Your task to perform on an android device: delete location history Image 0: 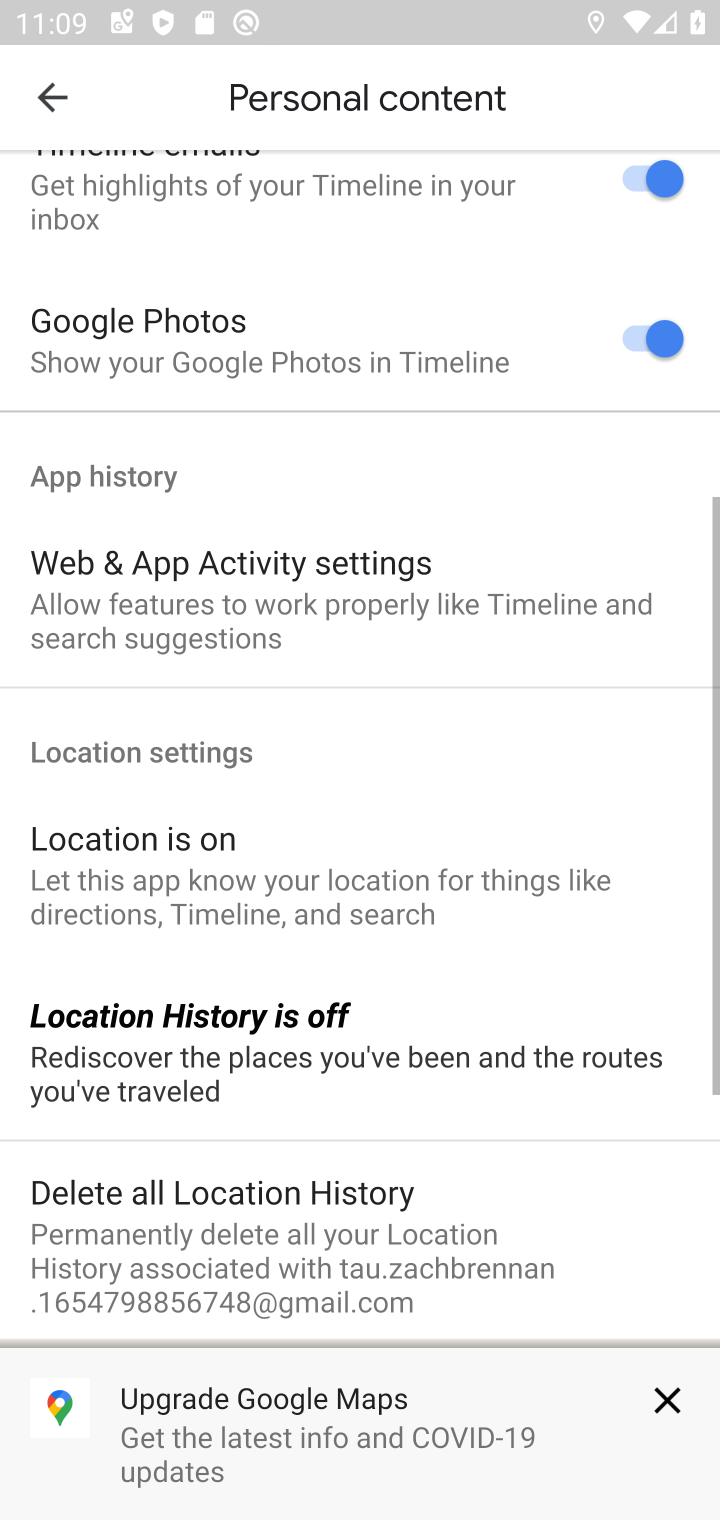
Step 0: press home button
Your task to perform on an android device: delete location history Image 1: 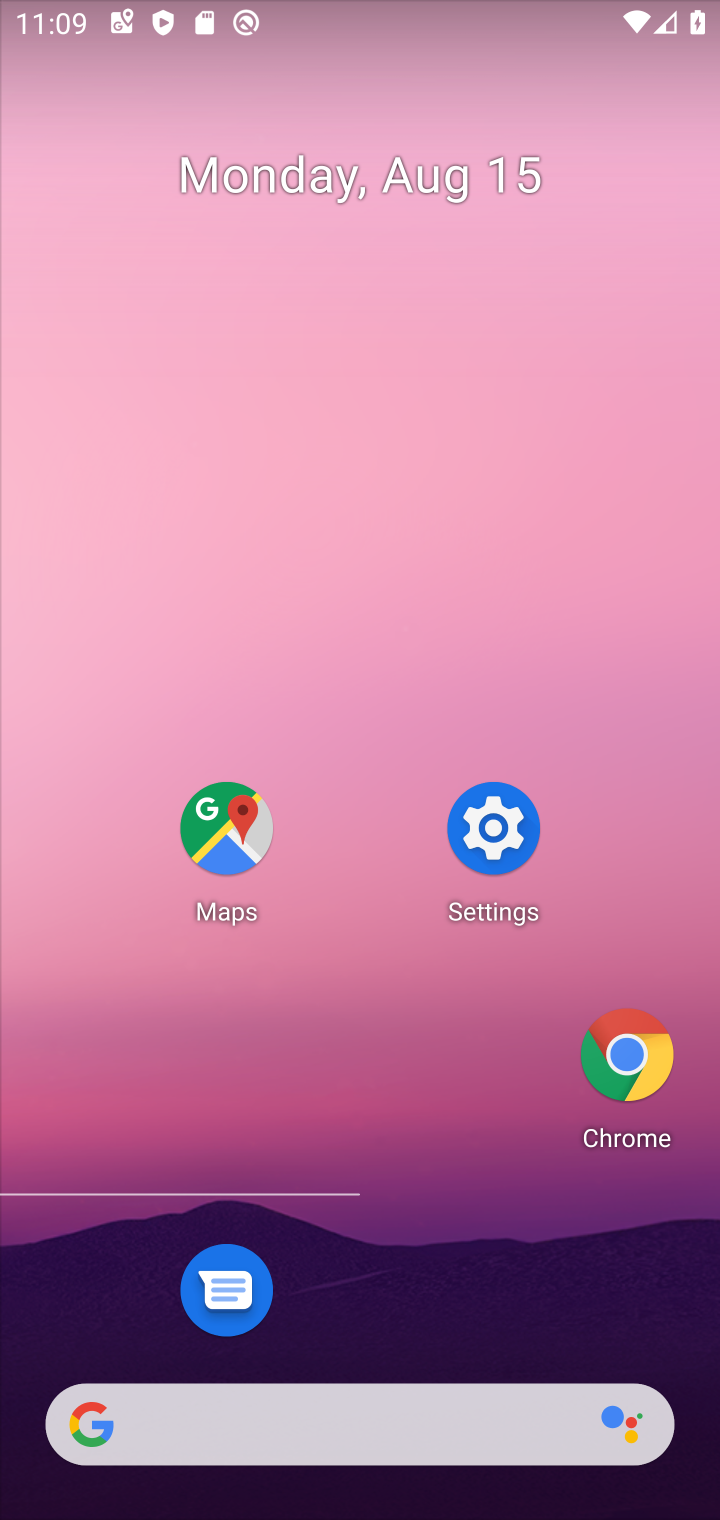
Step 1: press home button
Your task to perform on an android device: delete location history Image 2: 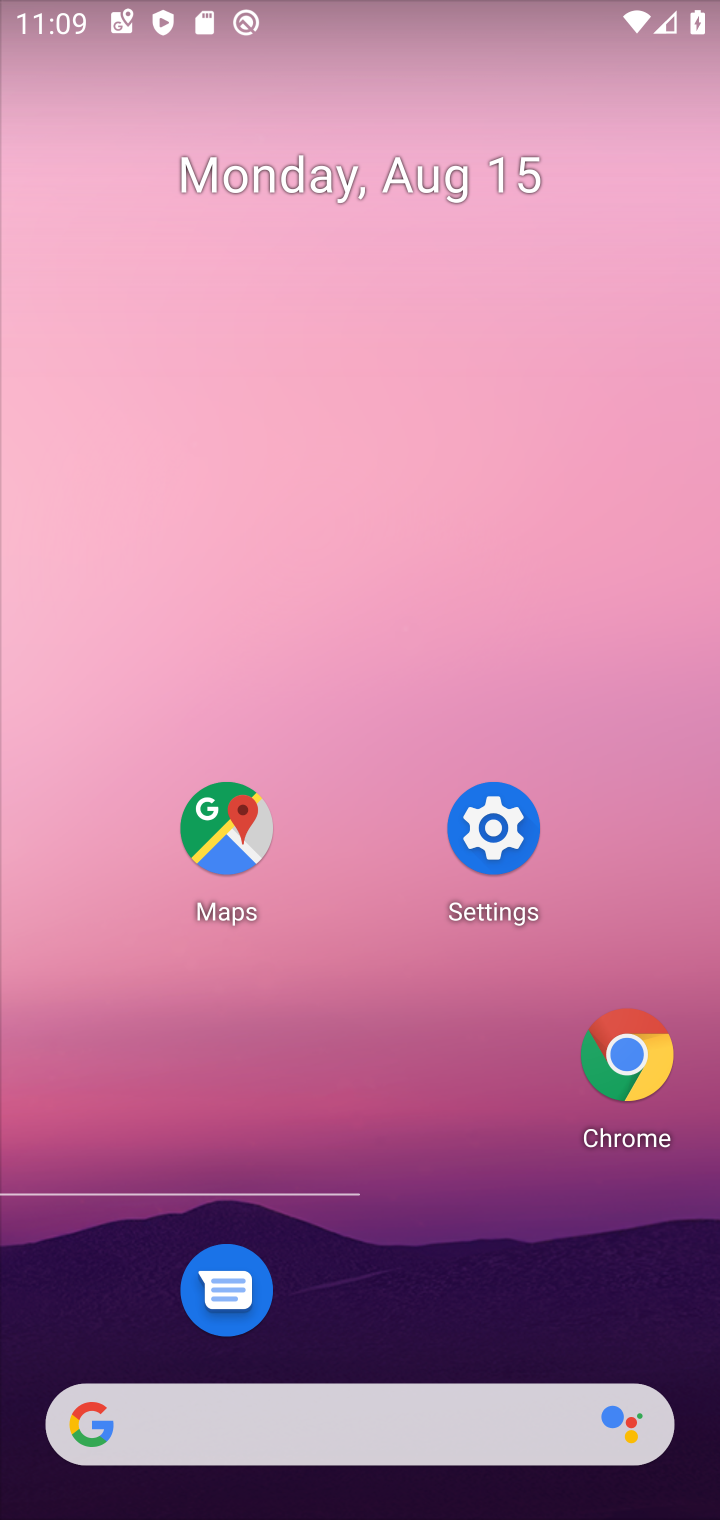
Step 2: click (231, 827)
Your task to perform on an android device: delete location history Image 3: 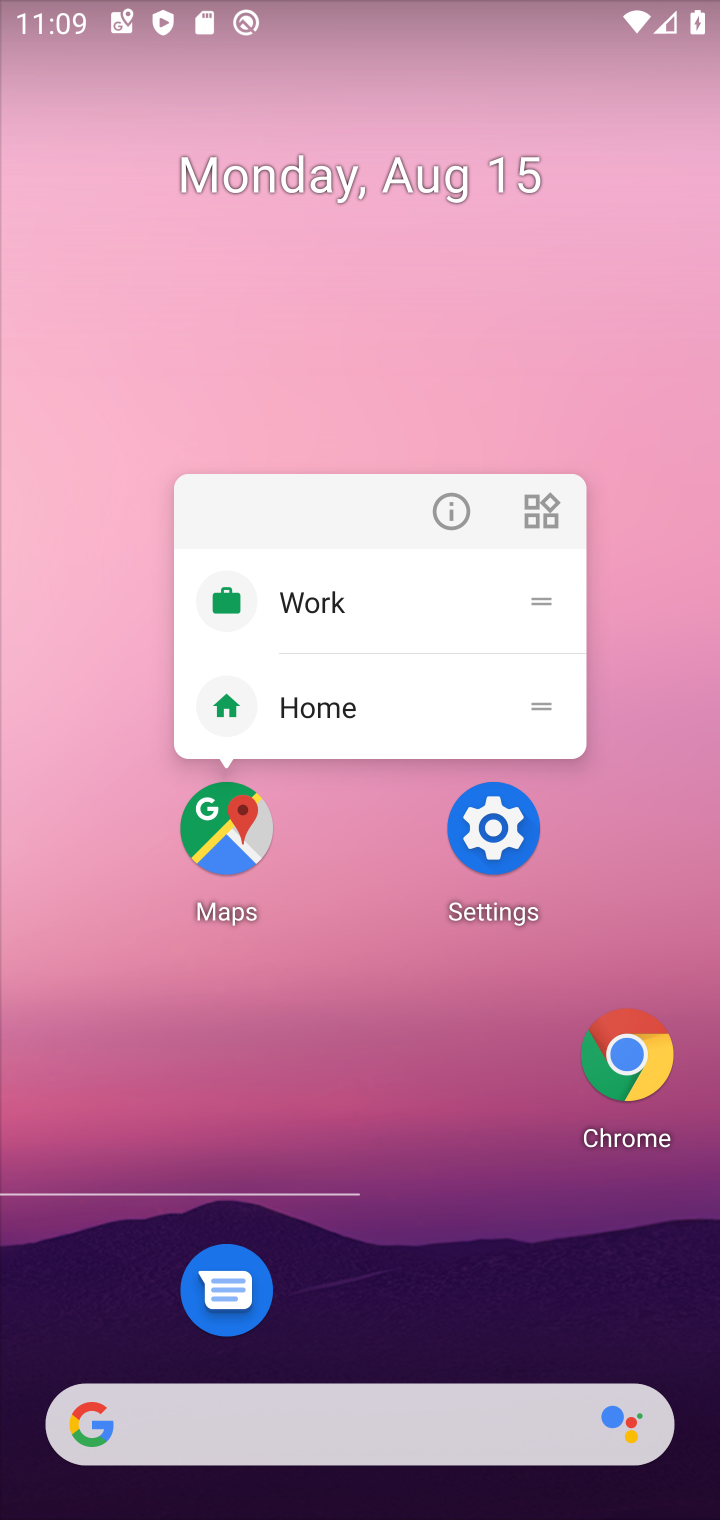
Step 3: click (231, 835)
Your task to perform on an android device: delete location history Image 4: 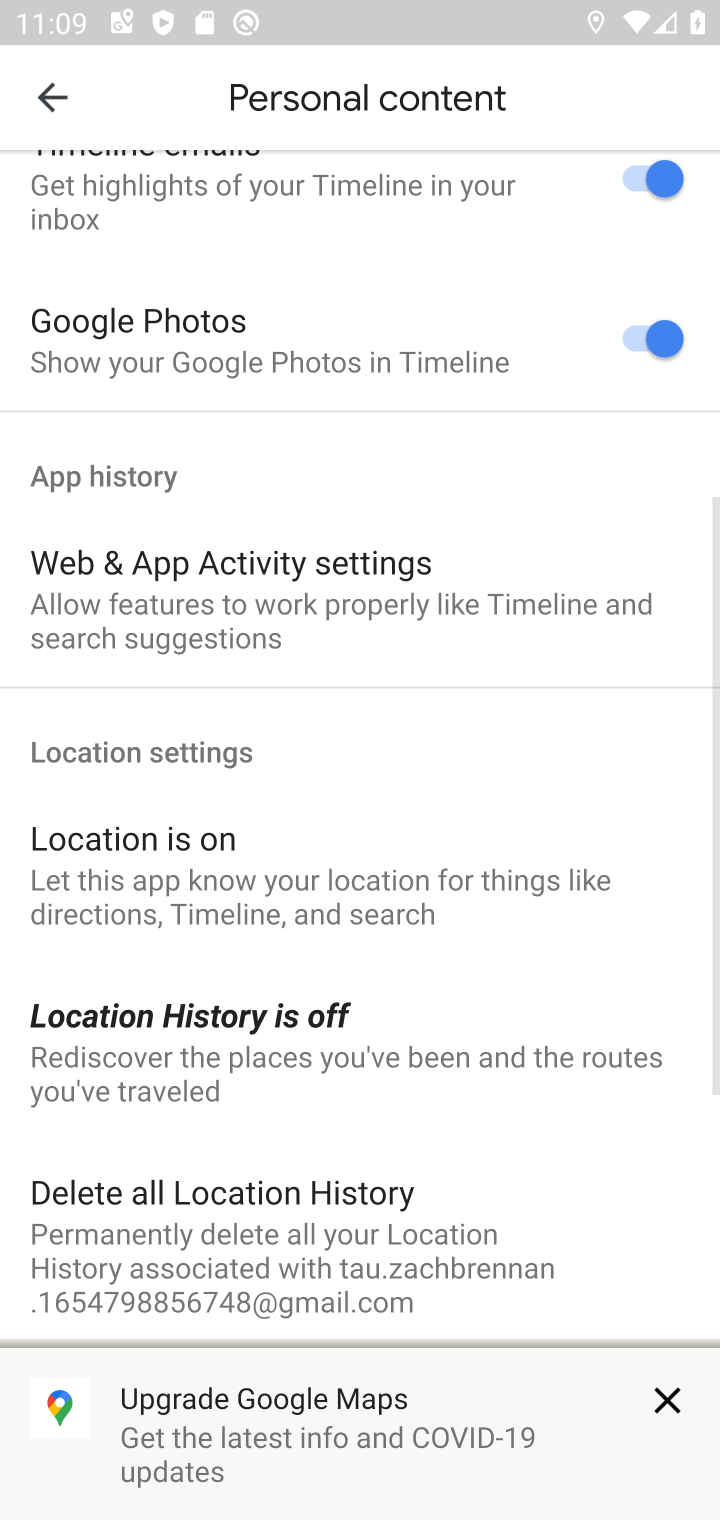
Step 4: click (283, 1191)
Your task to perform on an android device: delete location history Image 5: 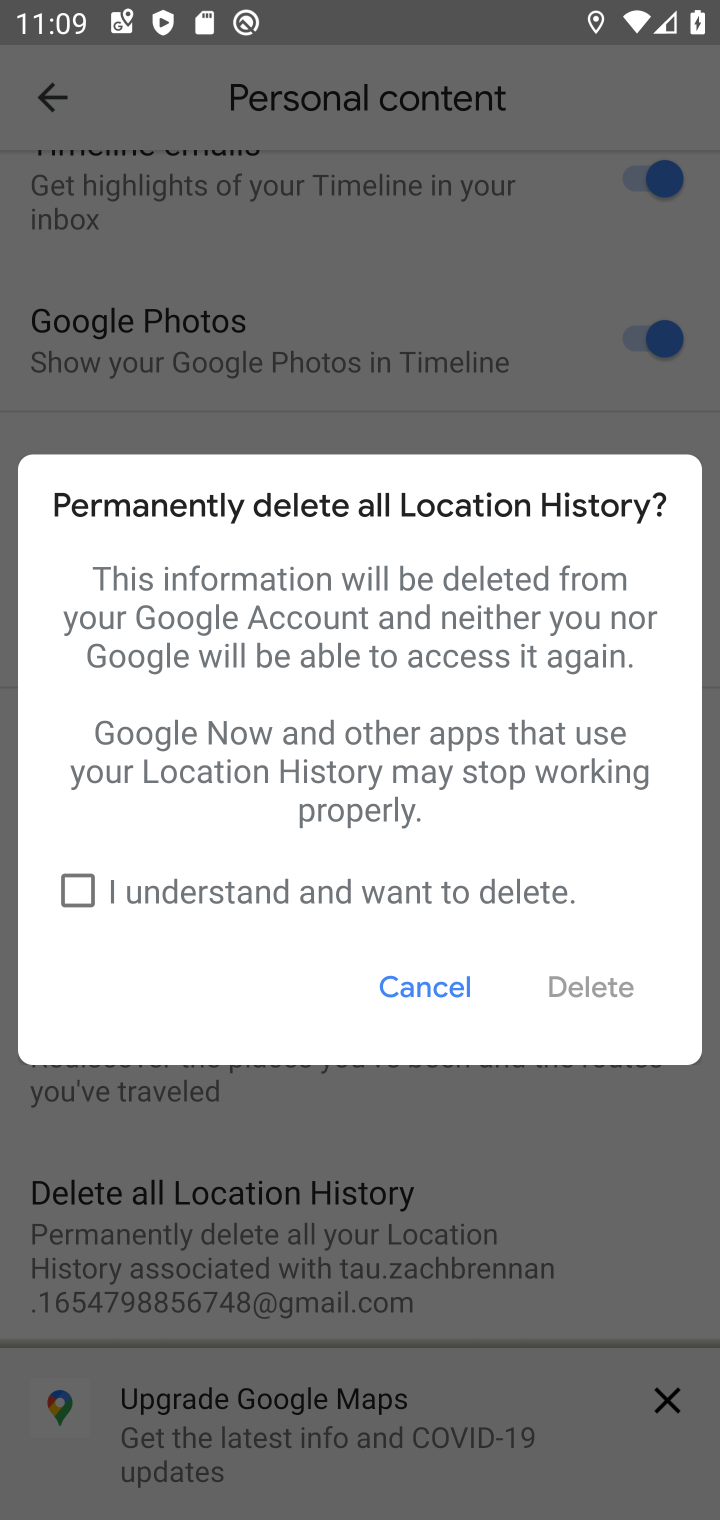
Step 5: click (70, 887)
Your task to perform on an android device: delete location history Image 6: 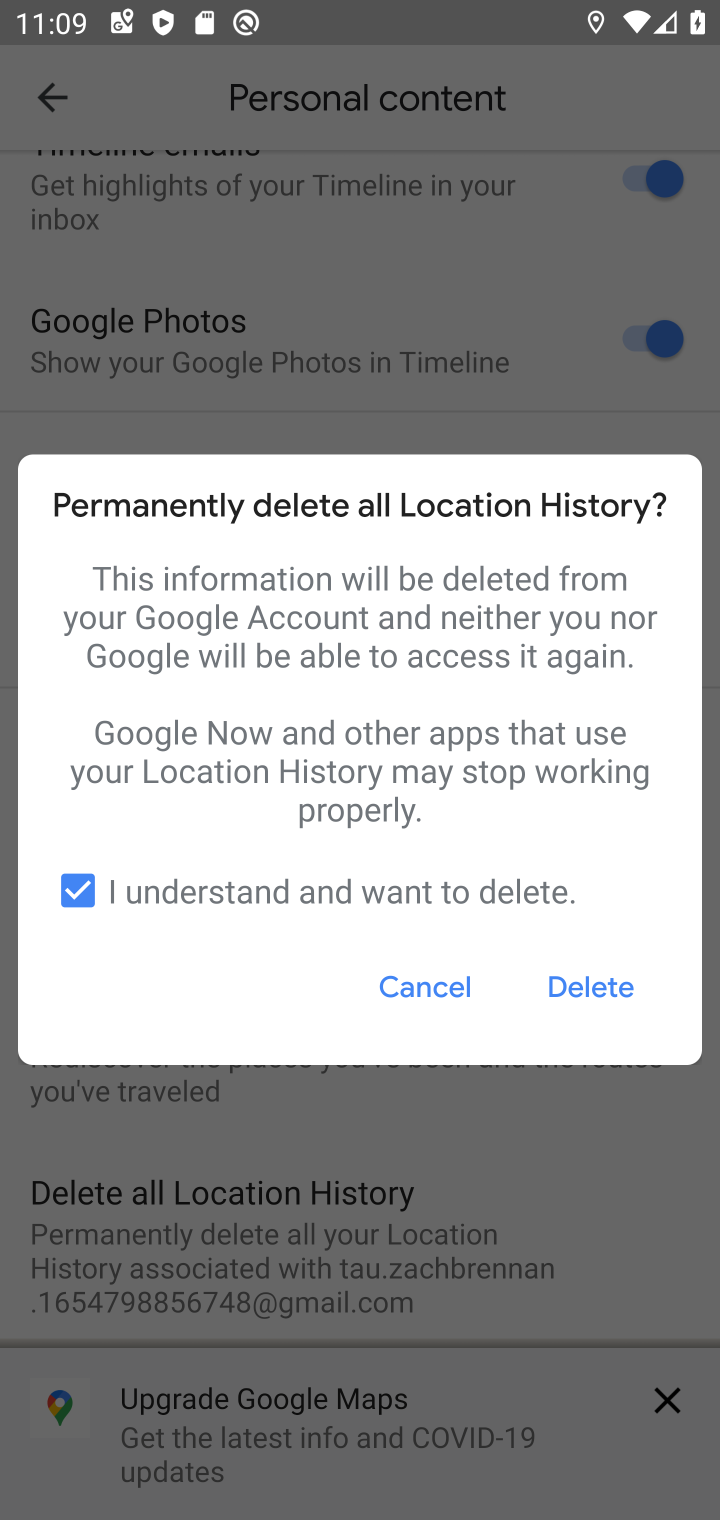
Step 6: click (575, 981)
Your task to perform on an android device: delete location history Image 7: 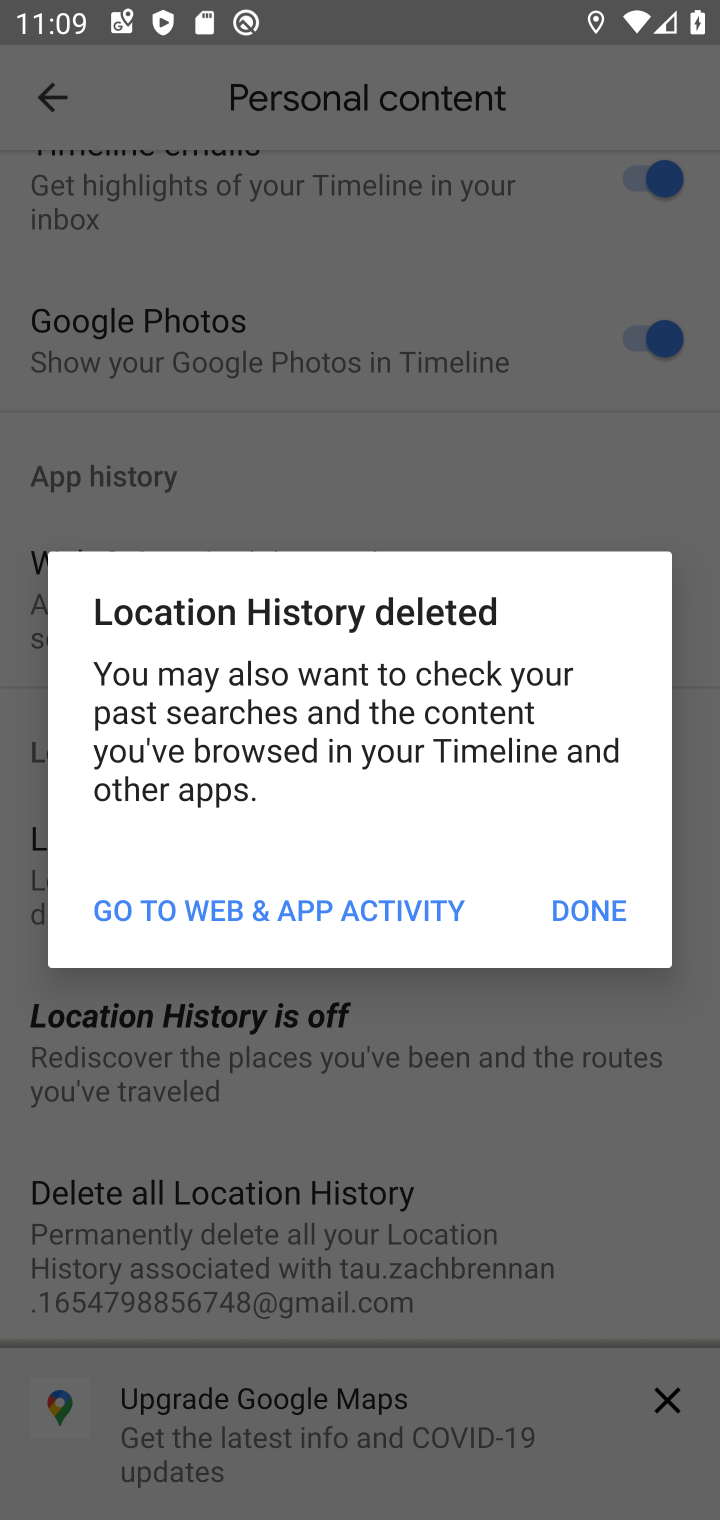
Step 7: click (617, 880)
Your task to perform on an android device: delete location history Image 8: 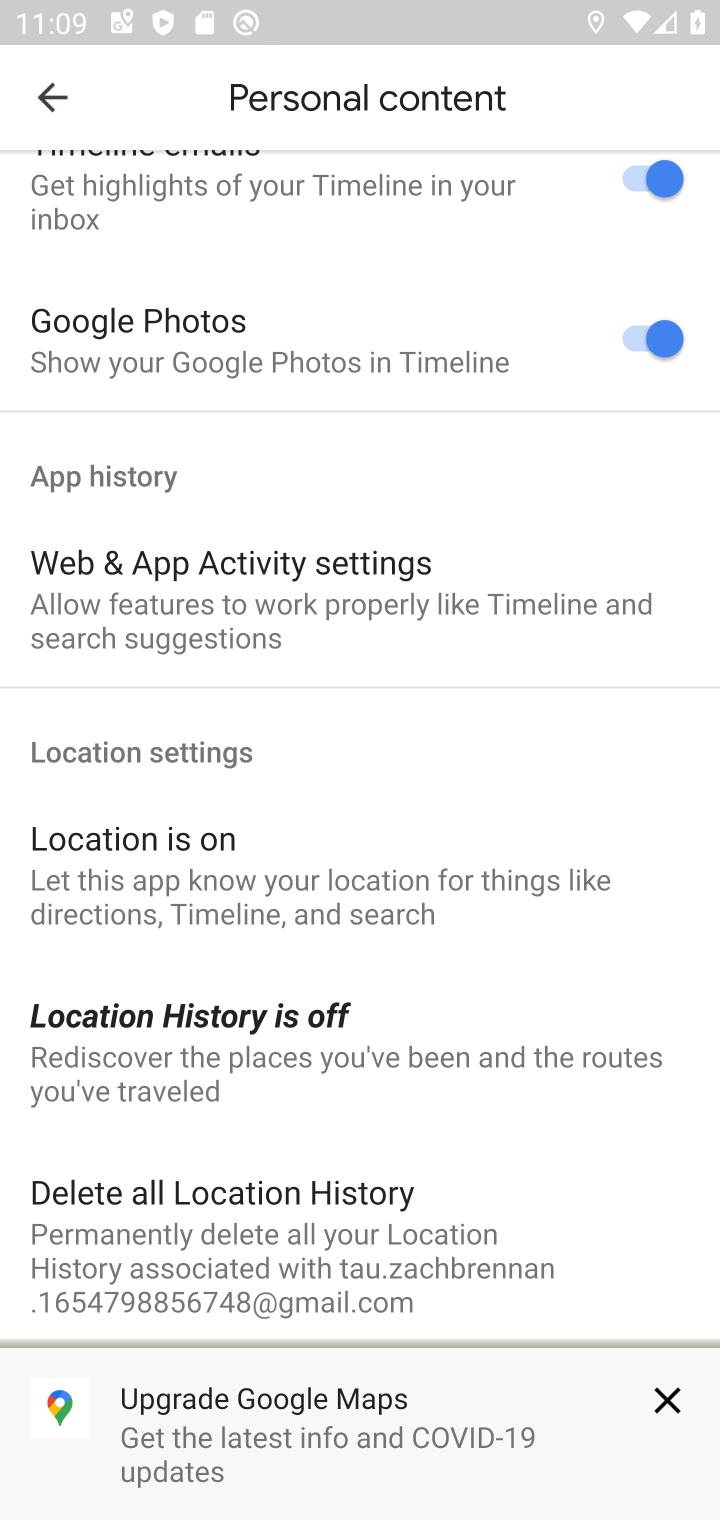
Step 8: task complete